Your task to perform on an android device: find photos in the google photos app Image 0: 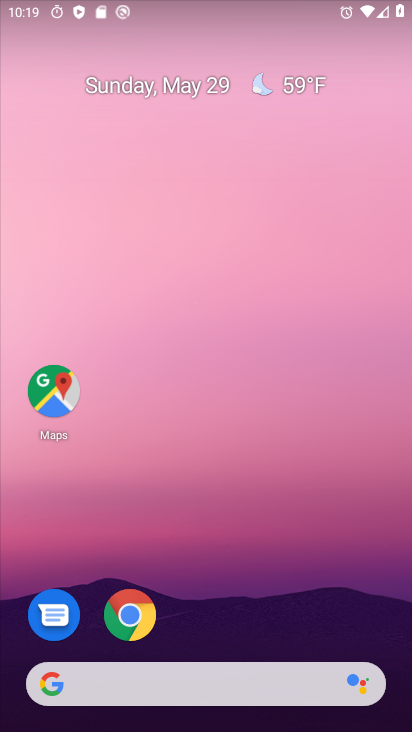
Step 0: drag from (217, 602) to (214, 46)
Your task to perform on an android device: find photos in the google photos app Image 1: 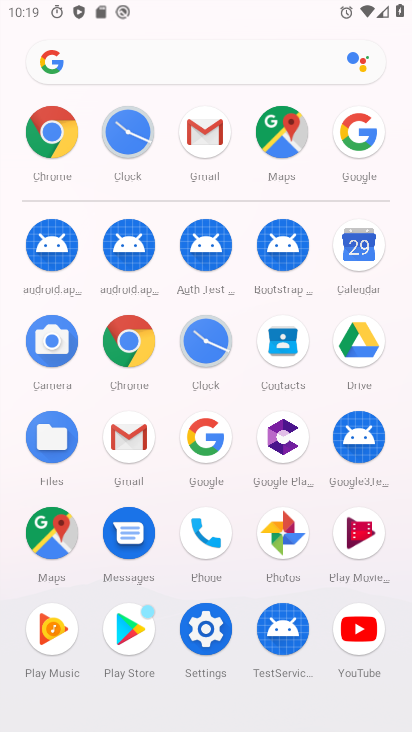
Step 1: click (273, 531)
Your task to perform on an android device: find photos in the google photos app Image 2: 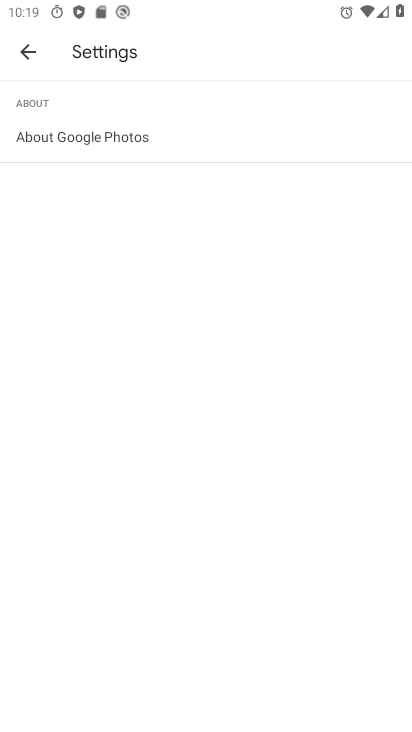
Step 2: task complete